Your task to perform on an android device: remove spam from my inbox in the gmail app Image 0: 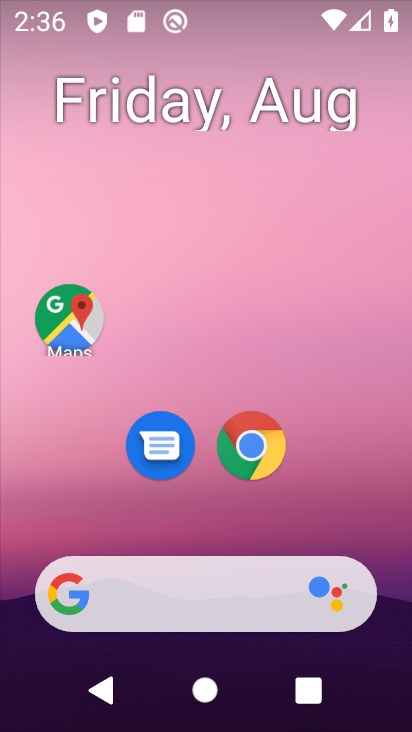
Step 0: drag from (343, 454) to (287, 114)
Your task to perform on an android device: remove spam from my inbox in the gmail app Image 1: 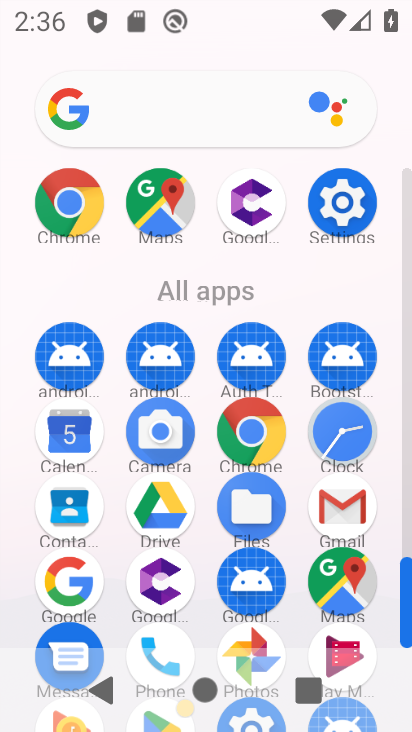
Step 1: click (342, 514)
Your task to perform on an android device: remove spam from my inbox in the gmail app Image 2: 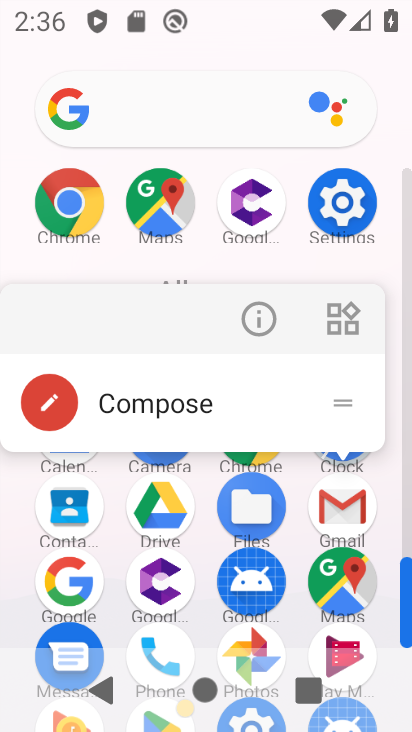
Step 2: click (347, 503)
Your task to perform on an android device: remove spam from my inbox in the gmail app Image 3: 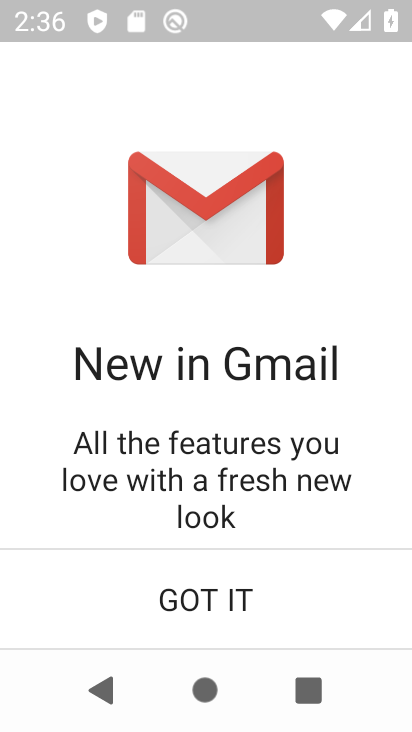
Step 3: click (250, 592)
Your task to perform on an android device: remove spam from my inbox in the gmail app Image 4: 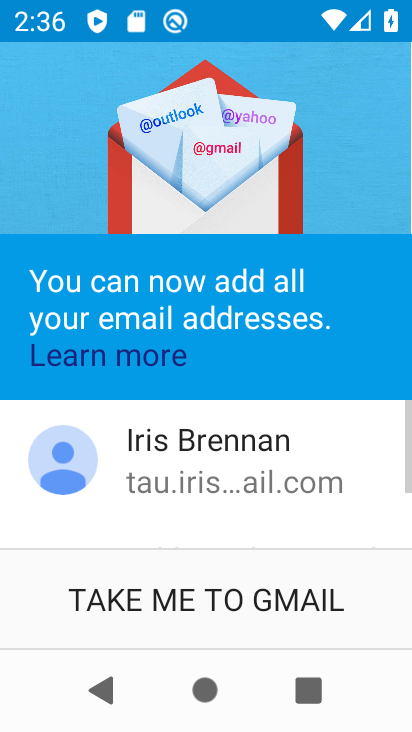
Step 4: click (250, 592)
Your task to perform on an android device: remove spam from my inbox in the gmail app Image 5: 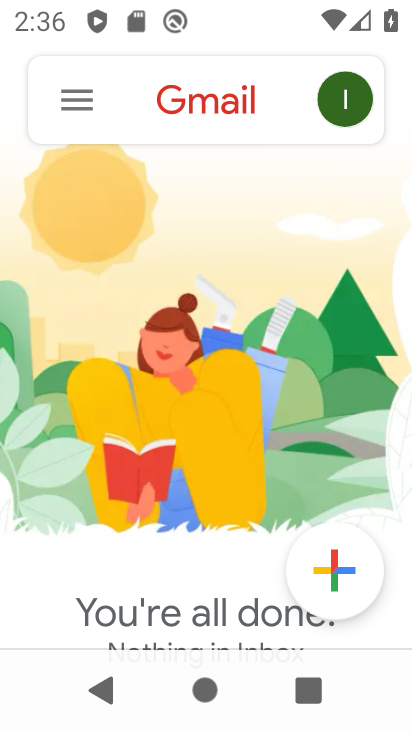
Step 5: click (80, 107)
Your task to perform on an android device: remove spam from my inbox in the gmail app Image 6: 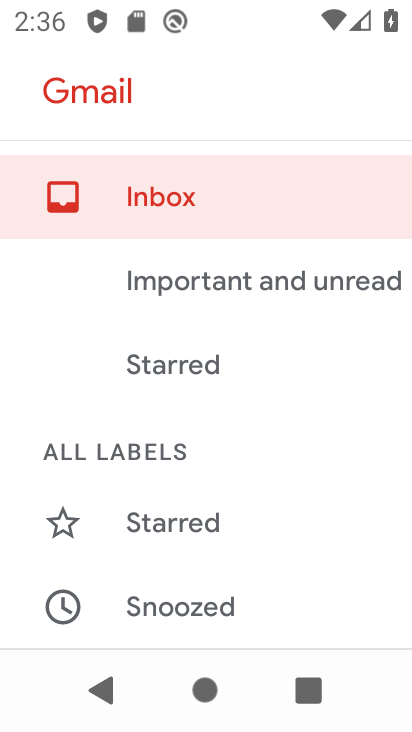
Step 6: drag from (234, 576) to (276, 301)
Your task to perform on an android device: remove spam from my inbox in the gmail app Image 7: 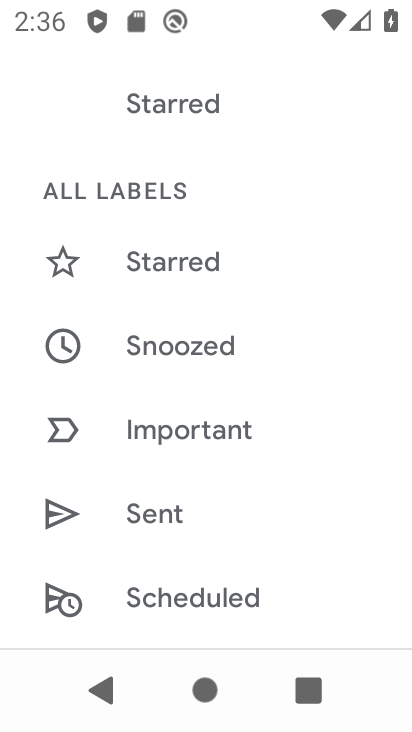
Step 7: drag from (325, 628) to (293, 691)
Your task to perform on an android device: remove spam from my inbox in the gmail app Image 8: 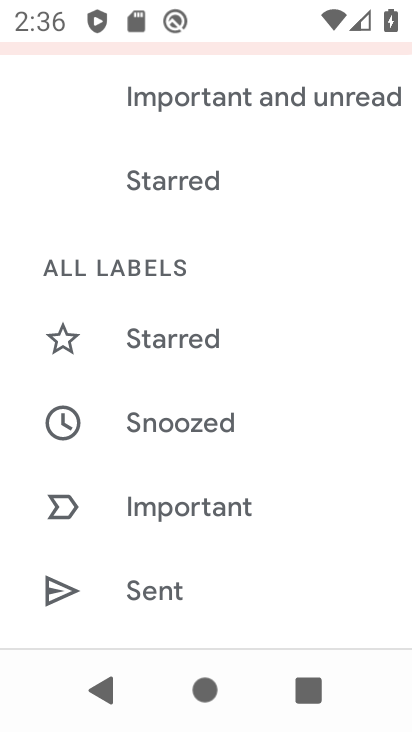
Step 8: drag from (256, 221) to (281, 537)
Your task to perform on an android device: remove spam from my inbox in the gmail app Image 9: 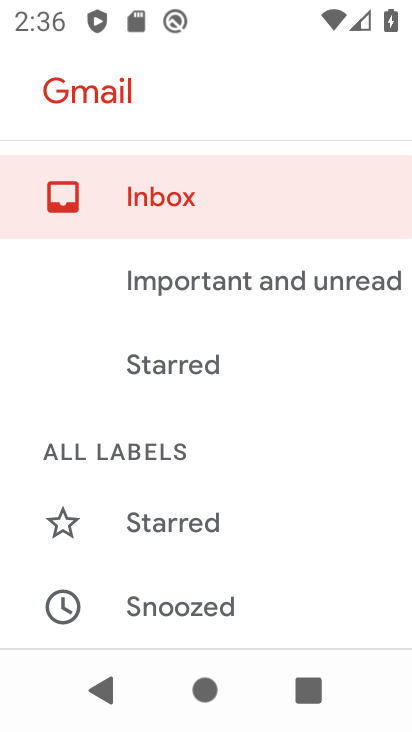
Step 9: click (182, 212)
Your task to perform on an android device: remove spam from my inbox in the gmail app Image 10: 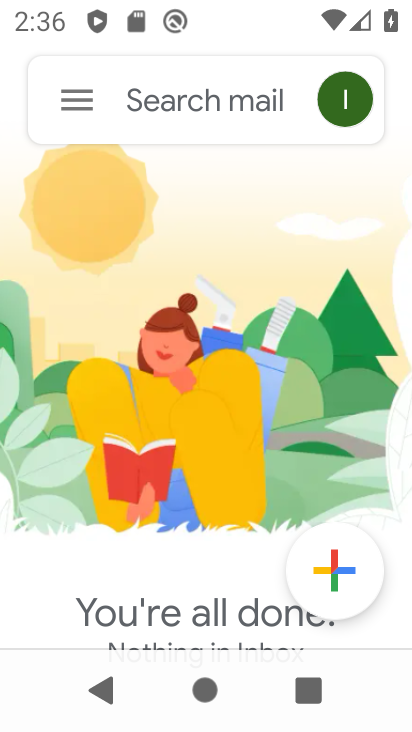
Step 10: task complete